Your task to perform on an android device: Open wifi settings Image 0: 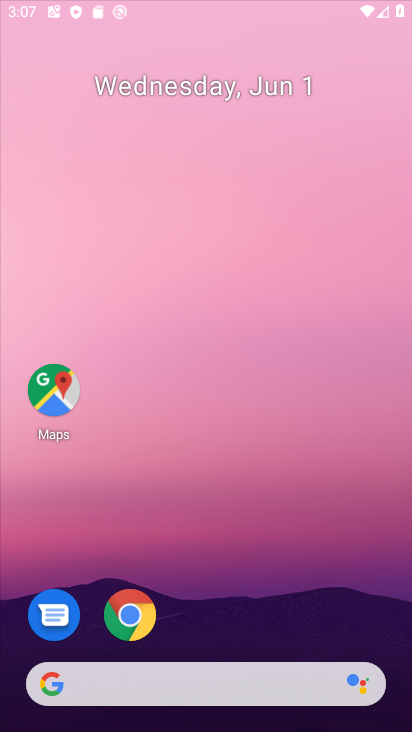
Step 0: press home button
Your task to perform on an android device: Open wifi settings Image 1: 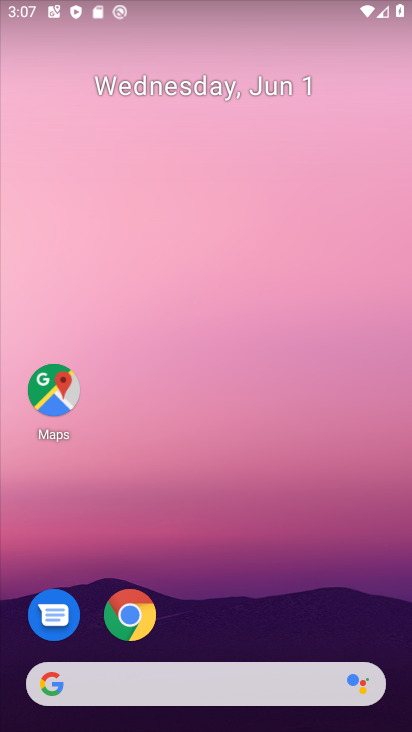
Step 1: drag from (204, 646) to (207, 97)
Your task to perform on an android device: Open wifi settings Image 2: 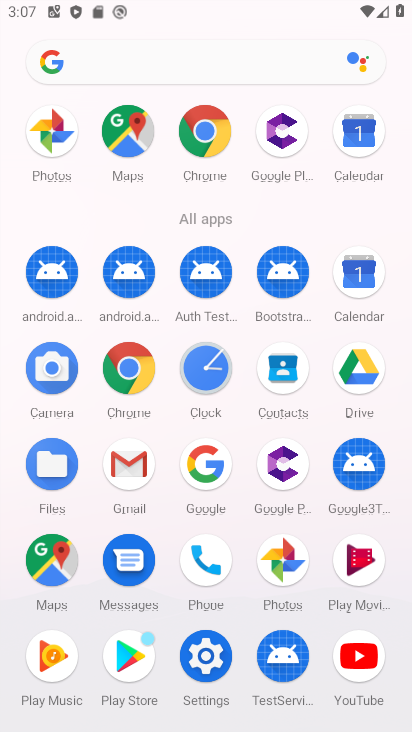
Step 2: click (204, 651)
Your task to perform on an android device: Open wifi settings Image 3: 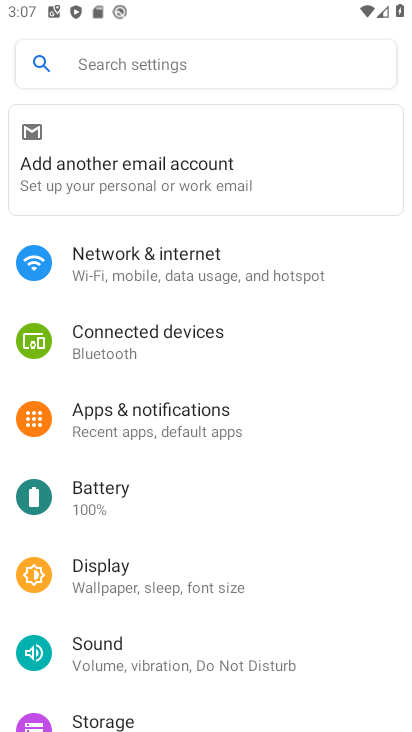
Step 3: click (230, 251)
Your task to perform on an android device: Open wifi settings Image 4: 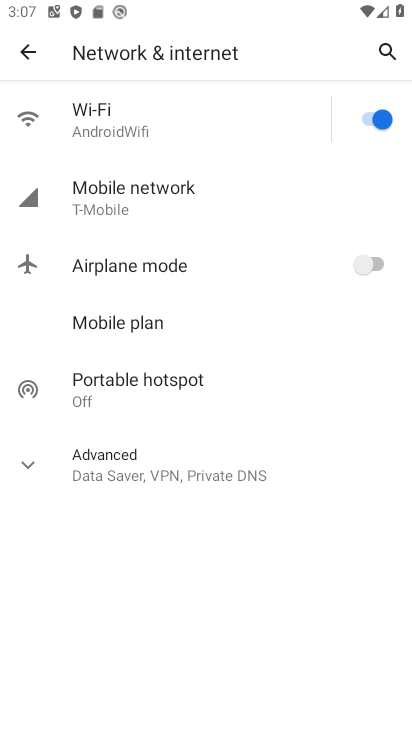
Step 4: click (165, 121)
Your task to perform on an android device: Open wifi settings Image 5: 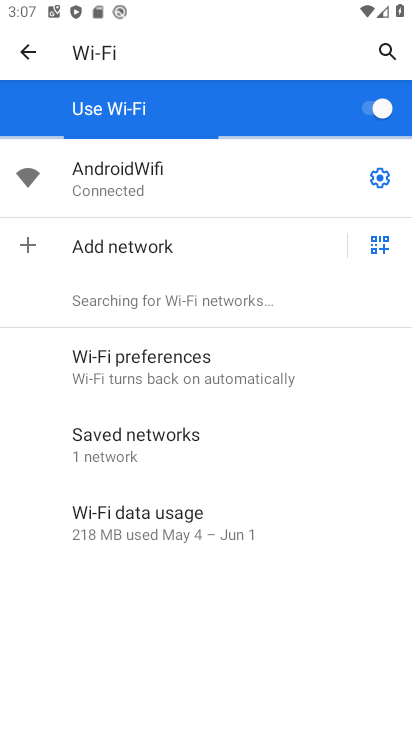
Step 5: task complete